Your task to perform on an android device: Go to sound settings Image 0: 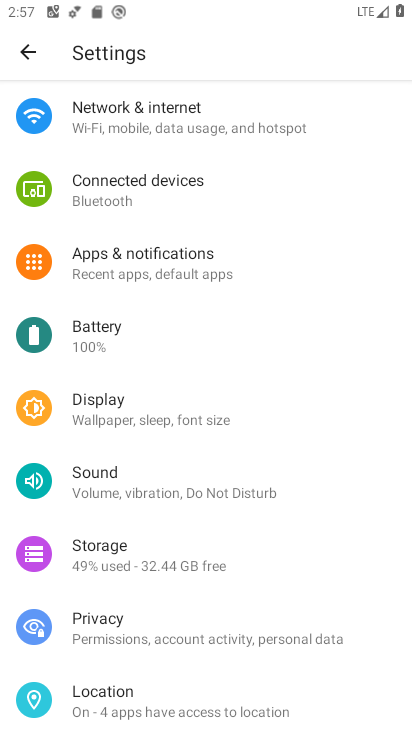
Step 0: click (224, 490)
Your task to perform on an android device: Go to sound settings Image 1: 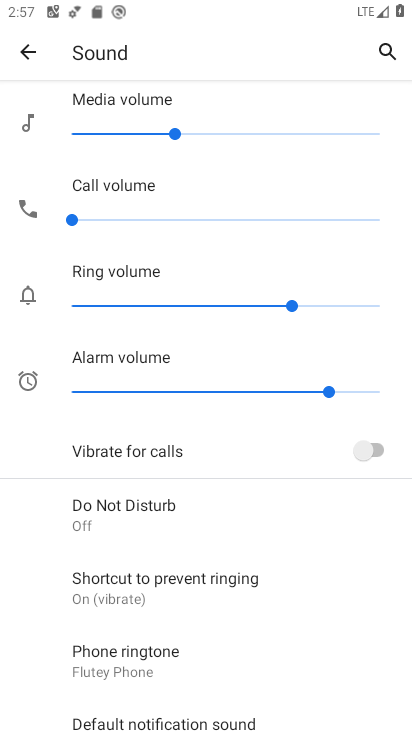
Step 1: task complete